Your task to perform on an android device: stop showing notifications on the lock screen Image 0: 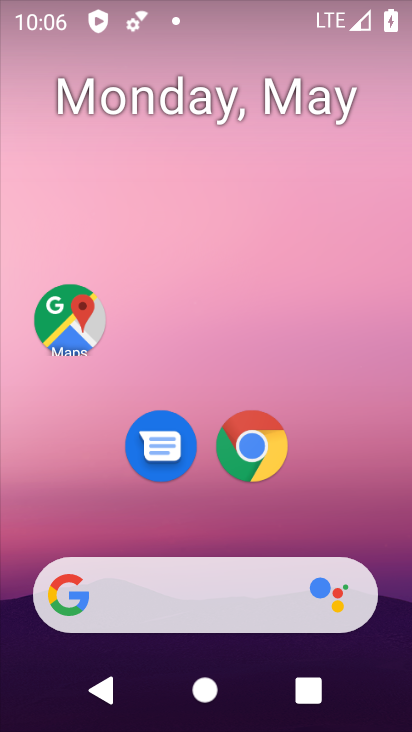
Step 0: drag from (387, 537) to (307, 169)
Your task to perform on an android device: stop showing notifications on the lock screen Image 1: 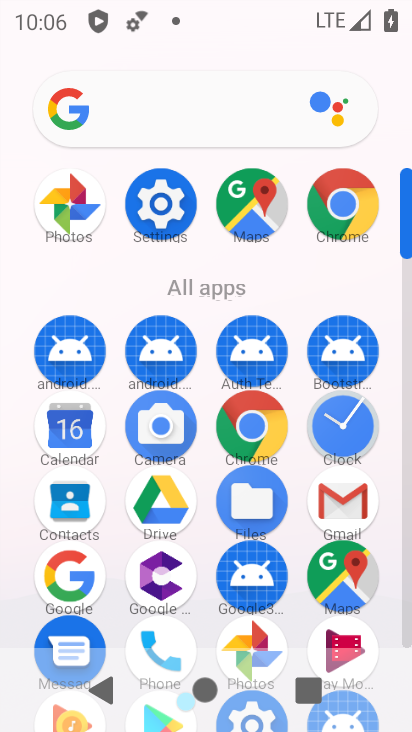
Step 1: click (170, 222)
Your task to perform on an android device: stop showing notifications on the lock screen Image 2: 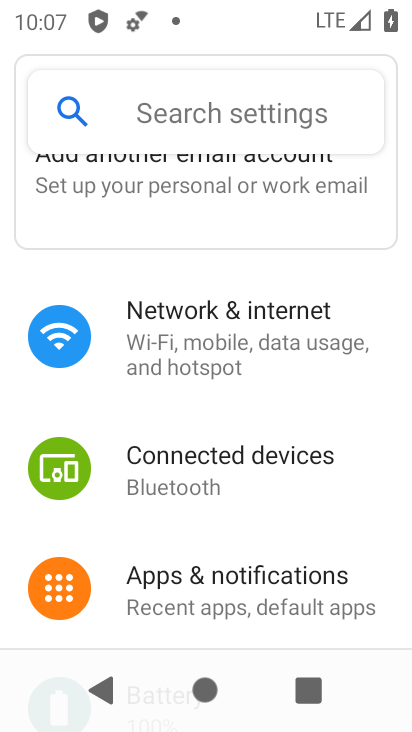
Step 2: click (287, 596)
Your task to perform on an android device: stop showing notifications on the lock screen Image 3: 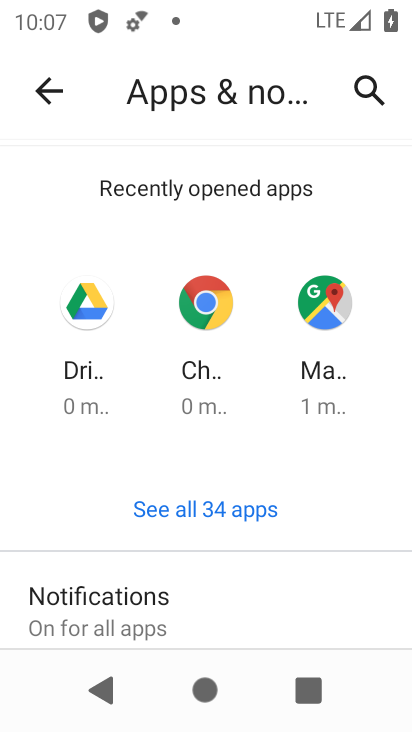
Step 3: click (219, 601)
Your task to perform on an android device: stop showing notifications on the lock screen Image 4: 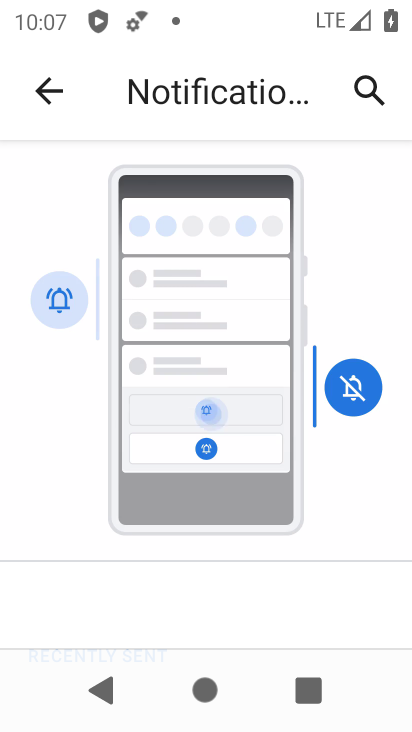
Step 4: drag from (300, 566) to (290, 231)
Your task to perform on an android device: stop showing notifications on the lock screen Image 5: 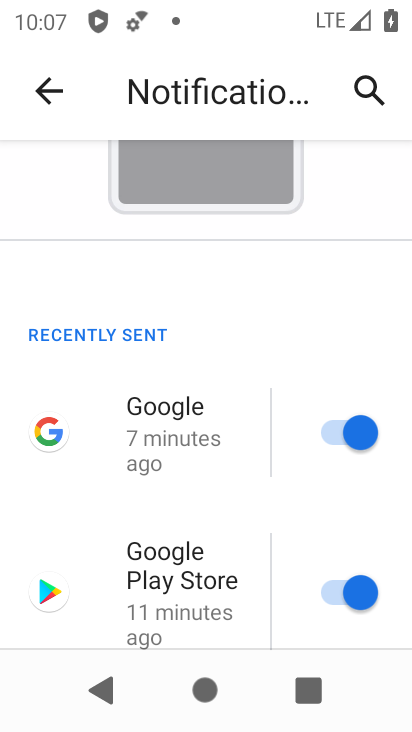
Step 5: drag from (308, 540) to (263, 241)
Your task to perform on an android device: stop showing notifications on the lock screen Image 6: 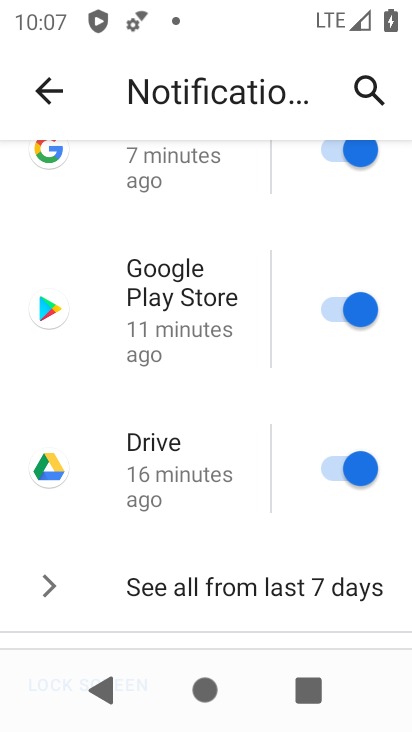
Step 6: drag from (288, 530) to (225, 213)
Your task to perform on an android device: stop showing notifications on the lock screen Image 7: 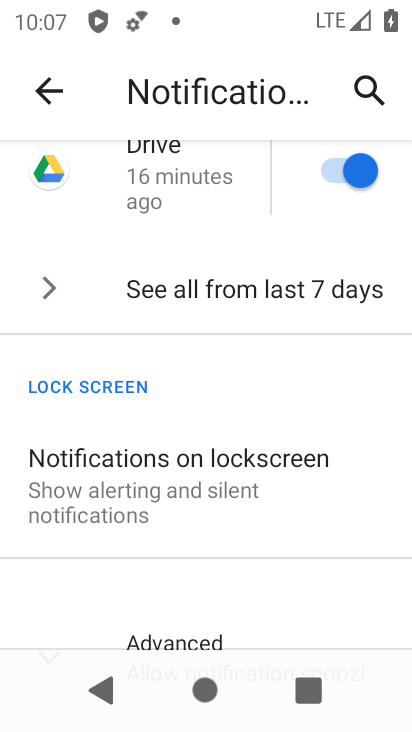
Step 7: click (193, 506)
Your task to perform on an android device: stop showing notifications on the lock screen Image 8: 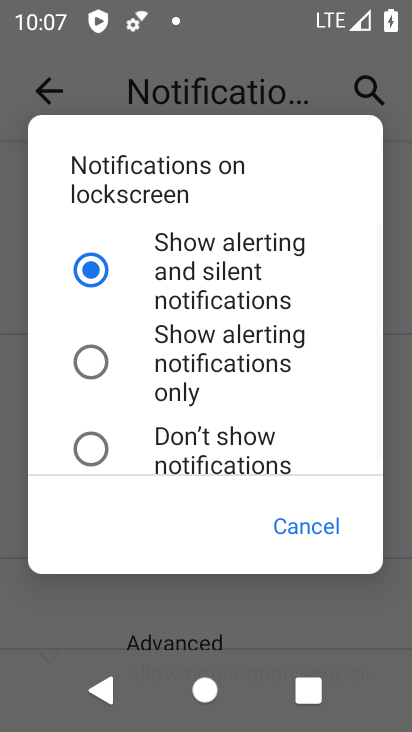
Step 8: click (96, 444)
Your task to perform on an android device: stop showing notifications on the lock screen Image 9: 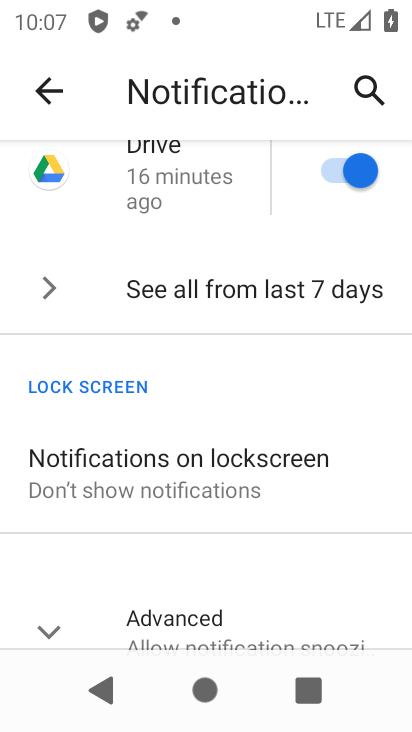
Step 9: task complete